Your task to perform on an android device: Search for Mexican restaurants on Maps Image 0: 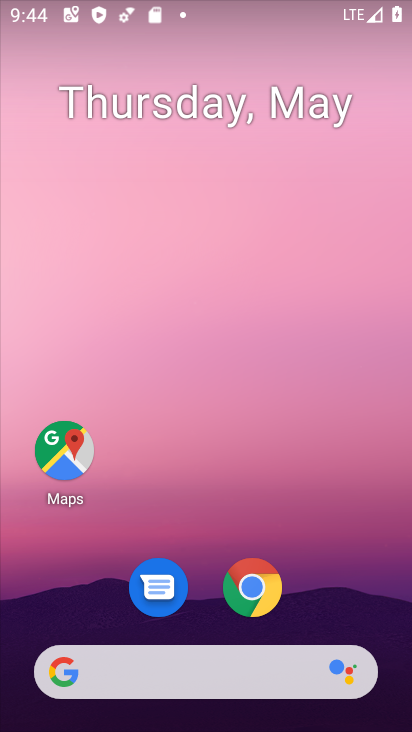
Step 0: click (49, 449)
Your task to perform on an android device: Search for Mexican restaurants on Maps Image 1: 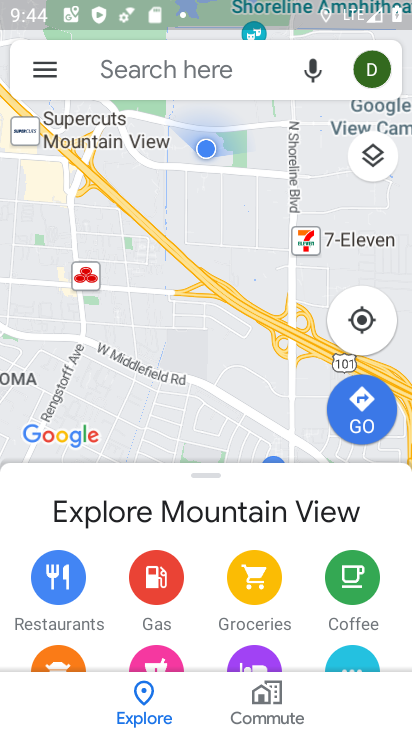
Step 1: click (108, 74)
Your task to perform on an android device: Search for Mexican restaurants on Maps Image 2: 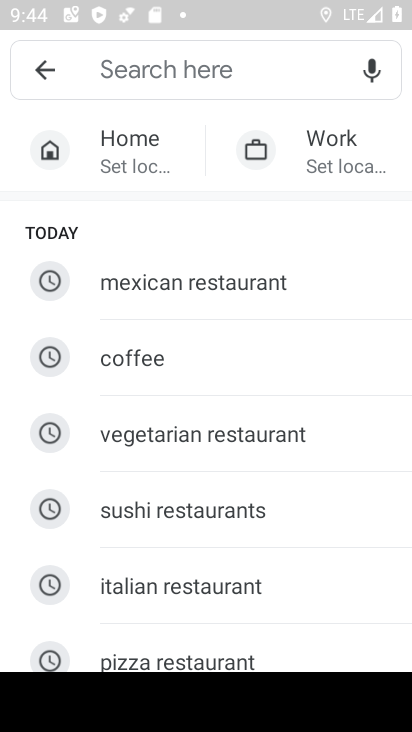
Step 2: type "mexican restaurant"
Your task to perform on an android device: Search for Mexican restaurants on Maps Image 3: 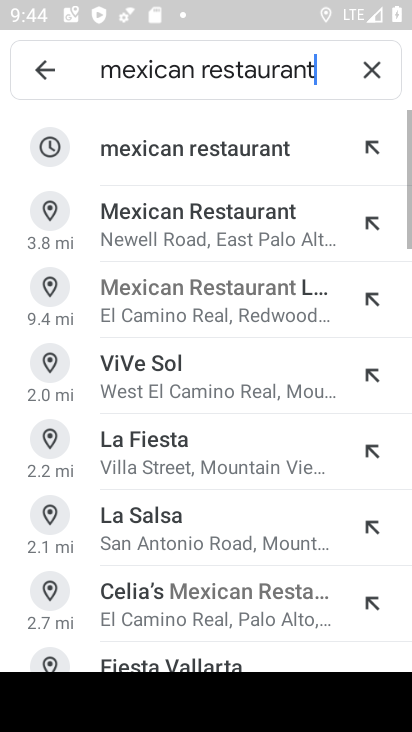
Step 3: click (126, 155)
Your task to perform on an android device: Search for Mexican restaurants on Maps Image 4: 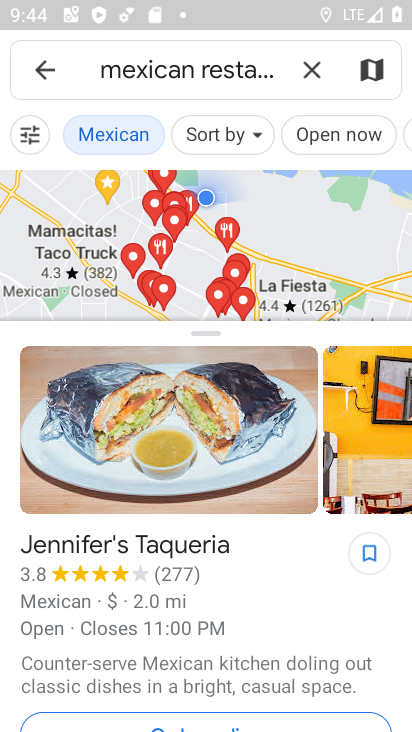
Step 4: task complete